Your task to perform on an android device: turn on javascript in the chrome app Image 0: 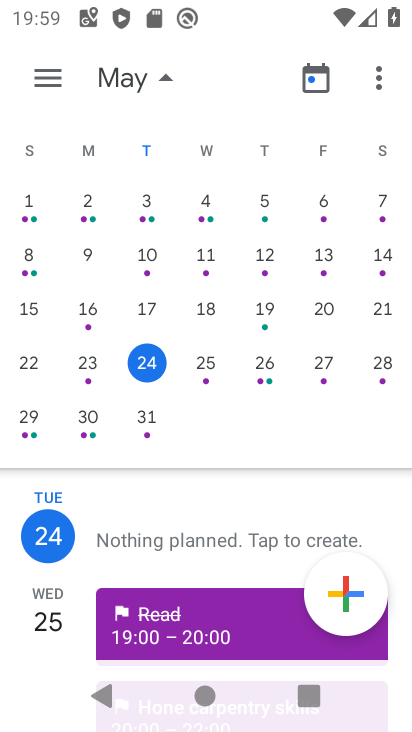
Step 0: press home button
Your task to perform on an android device: turn on javascript in the chrome app Image 1: 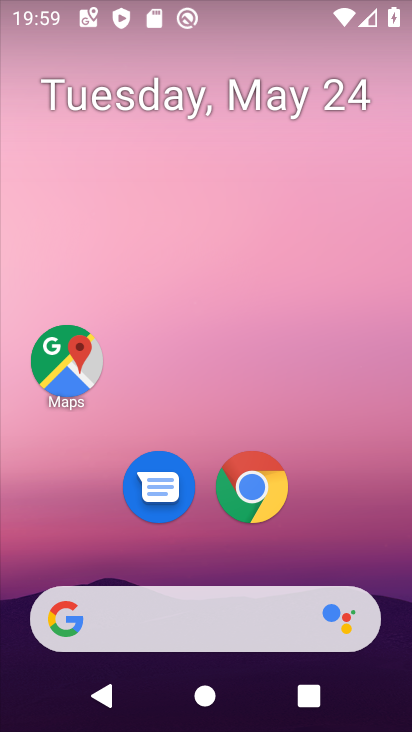
Step 1: click (262, 489)
Your task to perform on an android device: turn on javascript in the chrome app Image 2: 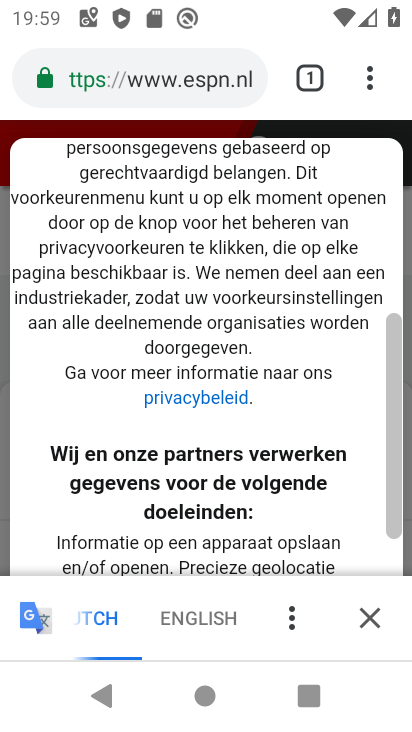
Step 2: click (374, 82)
Your task to perform on an android device: turn on javascript in the chrome app Image 3: 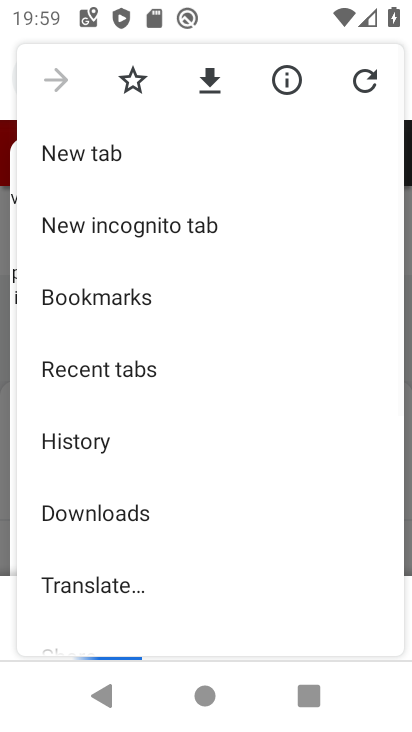
Step 3: drag from (1, 649) to (243, 169)
Your task to perform on an android device: turn on javascript in the chrome app Image 4: 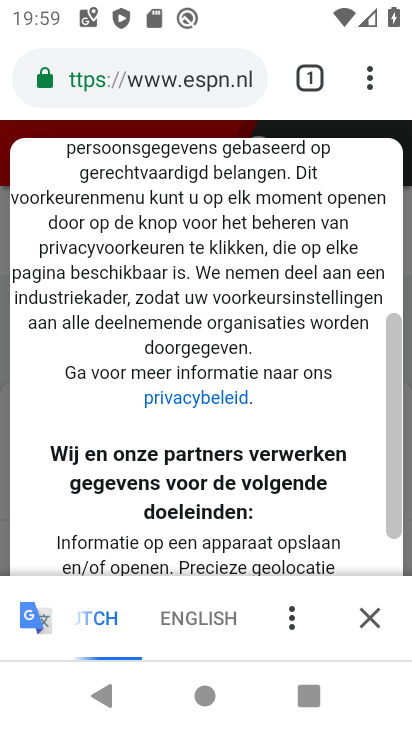
Step 4: click (366, 91)
Your task to perform on an android device: turn on javascript in the chrome app Image 5: 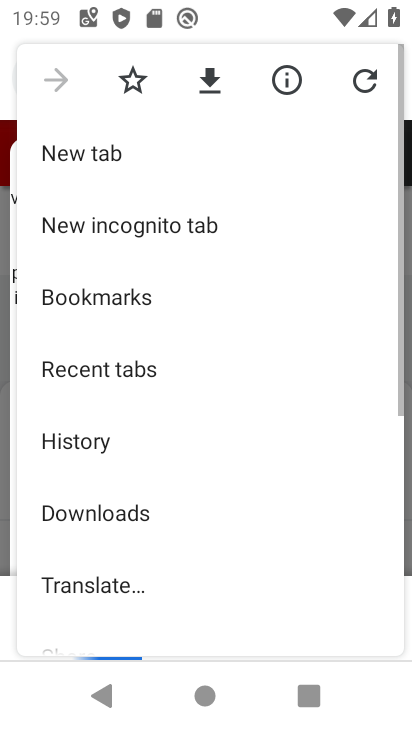
Step 5: drag from (205, 579) to (345, 107)
Your task to perform on an android device: turn on javascript in the chrome app Image 6: 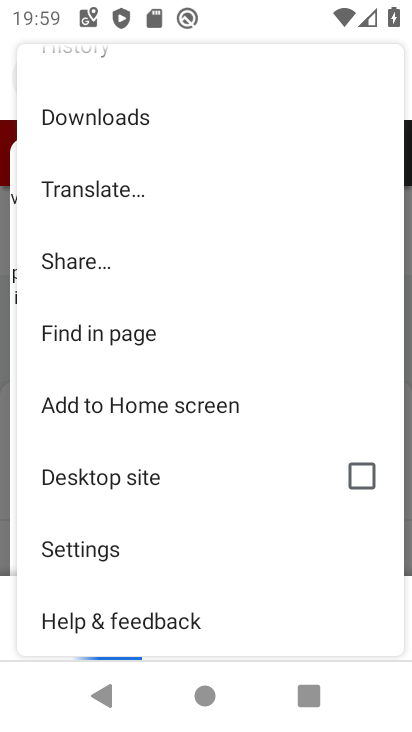
Step 6: click (118, 550)
Your task to perform on an android device: turn on javascript in the chrome app Image 7: 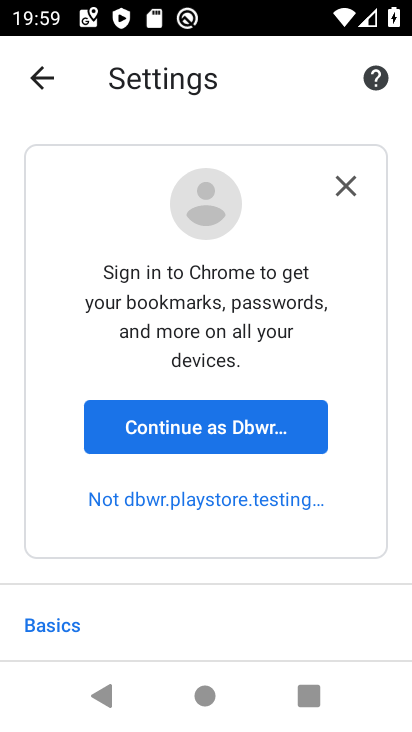
Step 7: click (347, 183)
Your task to perform on an android device: turn on javascript in the chrome app Image 8: 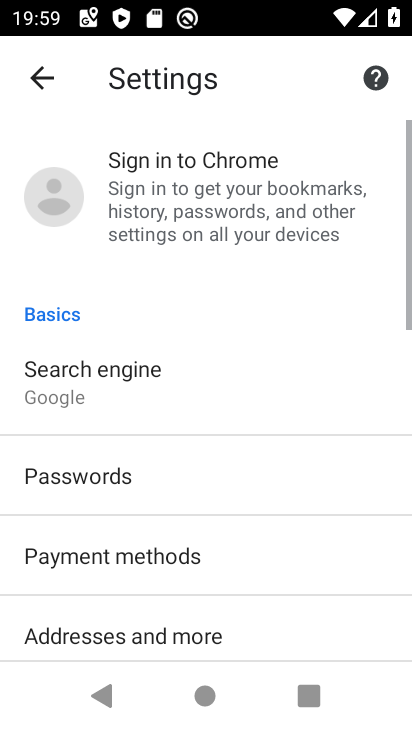
Step 8: drag from (7, 613) to (307, 79)
Your task to perform on an android device: turn on javascript in the chrome app Image 9: 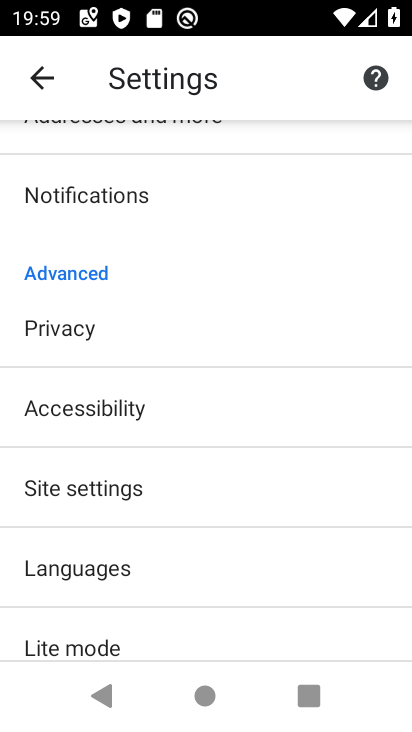
Step 9: click (163, 477)
Your task to perform on an android device: turn on javascript in the chrome app Image 10: 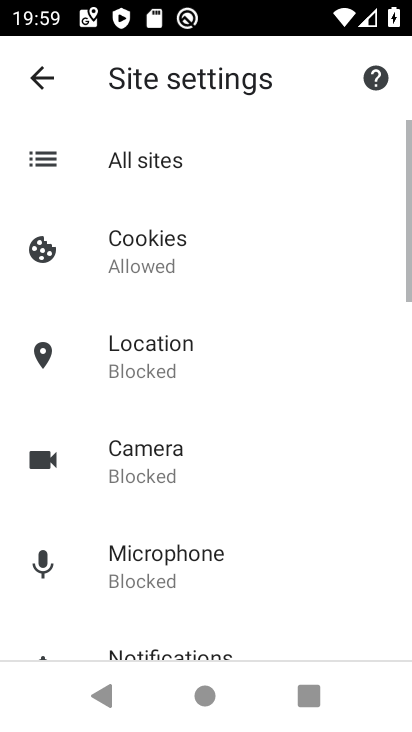
Step 10: drag from (21, 544) to (253, 114)
Your task to perform on an android device: turn on javascript in the chrome app Image 11: 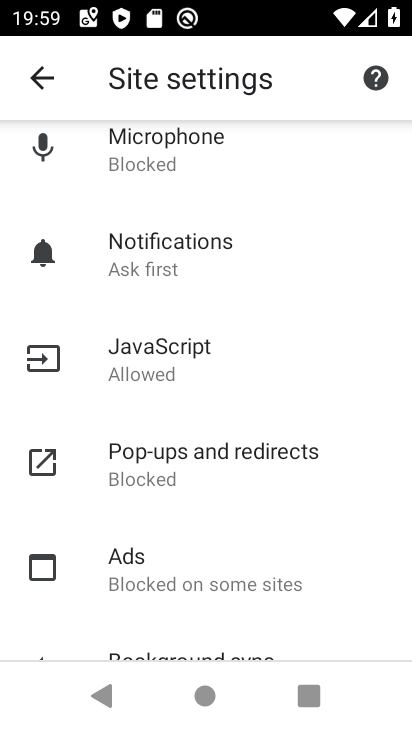
Step 11: click (157, 366)
Your task to perform on an android device: turn on javascript in the chrome app Image 12: 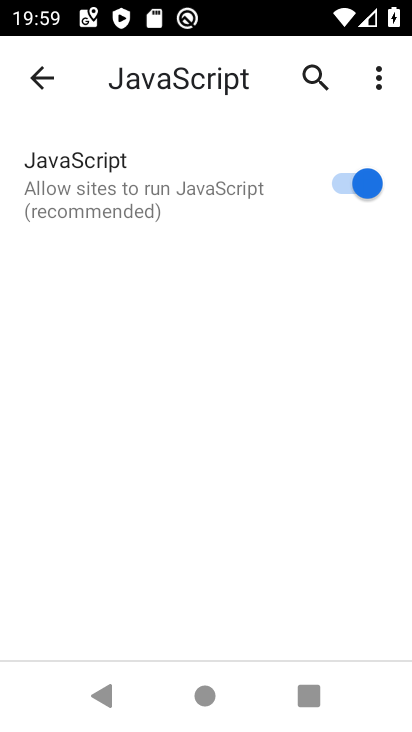
Step 12: task complete